Your task to perform on an android device: toggle notifications settings in the gmail app Image 0: 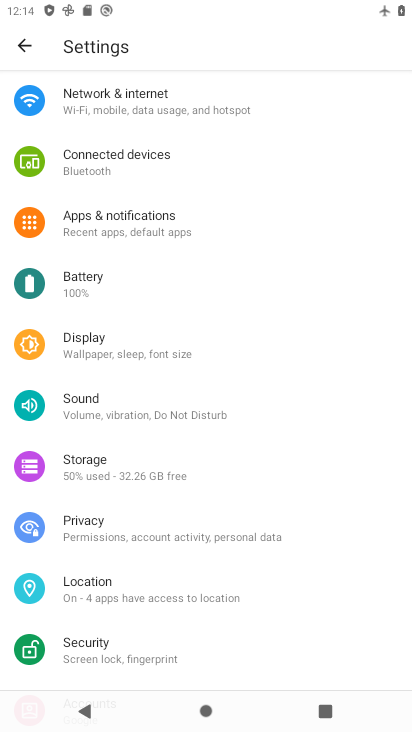
Step 0: press home button
Your task to perform on an android device: toggle notifications settings in the gmail app Image 1: 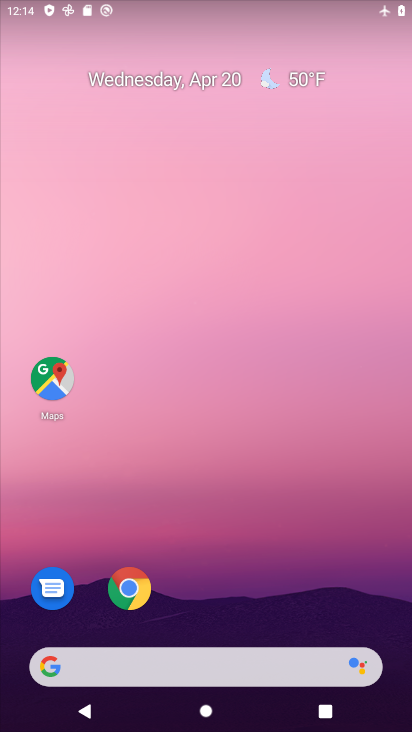
Step 1: drag from (221, 570) to (262, 136)
Your task to perform on an android device: toggle notifications settings in the gmail app Image 2: 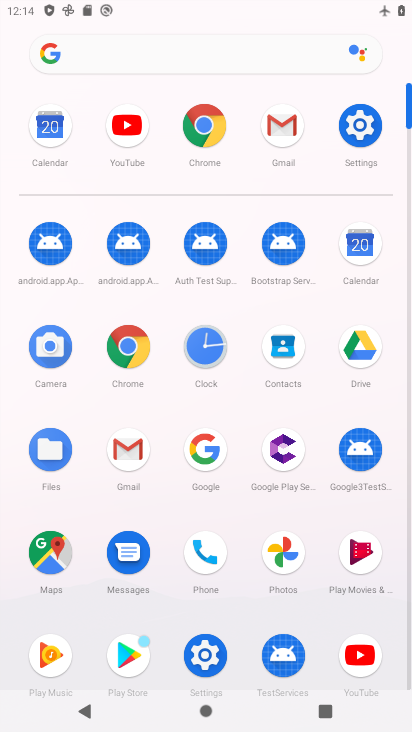
Step 2: click (127, 444)
Your task to perform on an android device: toggle notifications settings in the gmail app Image 3: 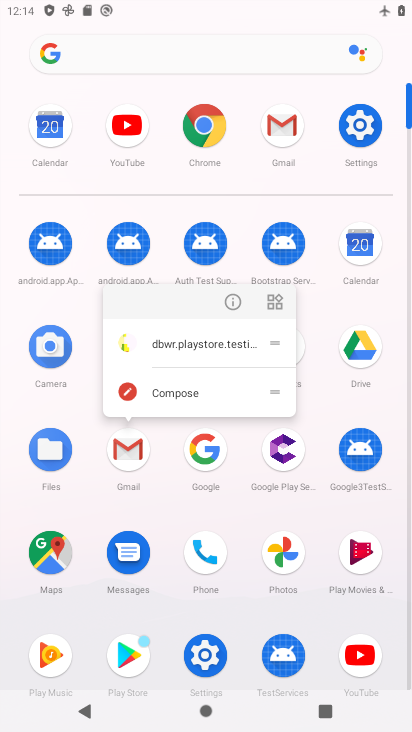
Step 3: click (126, 444)
Your task to perform on an android device: toggle notifications settings in the gmail app Image 4: 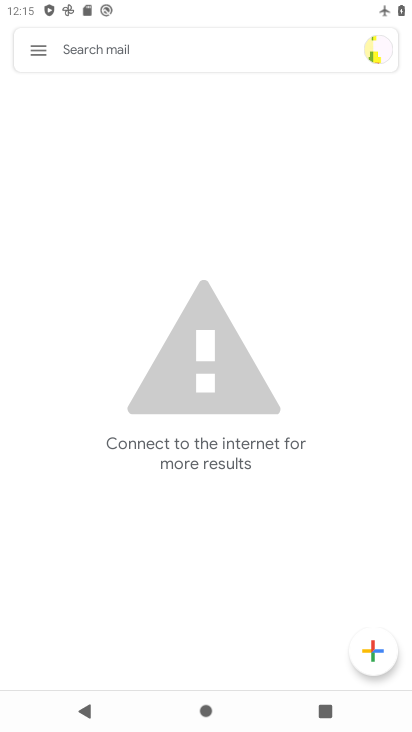
Step 4: click (38, 44)
Your task to perform on an android device: toggle notifications settings in the gmail app Image 5: 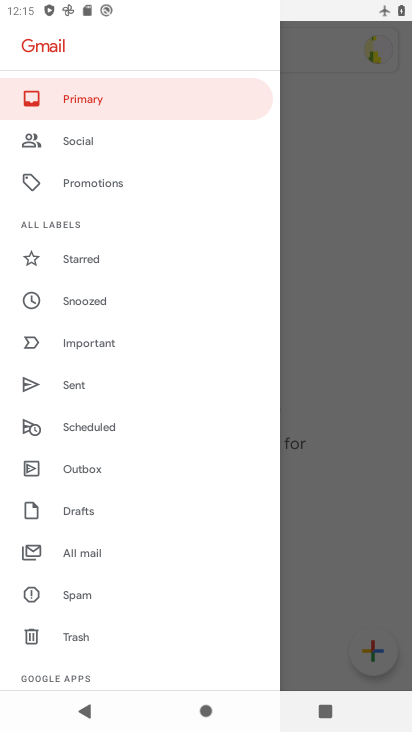
Step 5: drag from (103, 602) to (149, 116)
Your task to perform on an android device: toggle notifications settings in the gmail app Image 6: 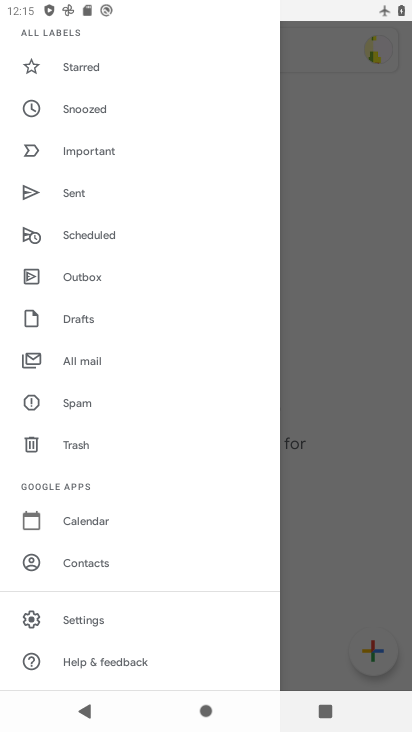
Step 6: click (107, 616)
Your task to perform on an android device: toggle notifications settings in the gmail app Image 7: 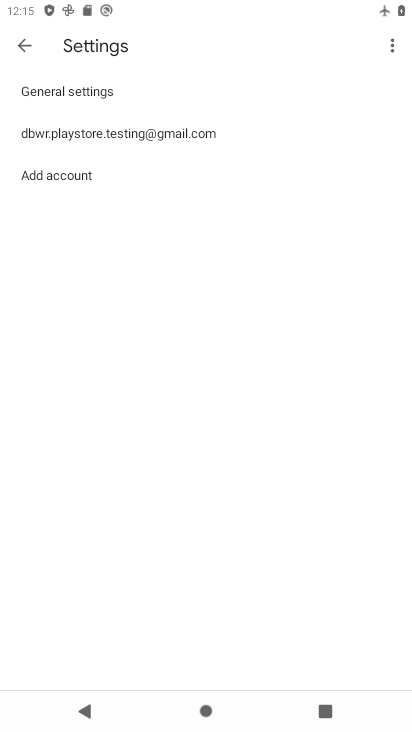
Step 7: click (125, 89)
Your task to perform on an android device: toggle notifications settings in the gmail app Image 8: 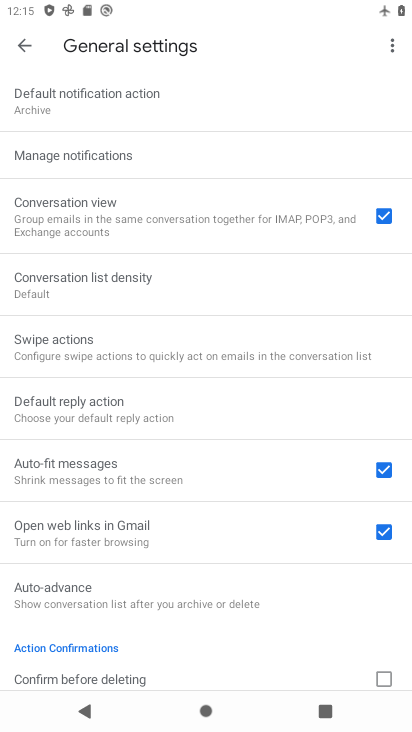
Step 8: click (145, 148)
Your task to perform on an android device: toggle notifications settings in the gmail app Image 9: 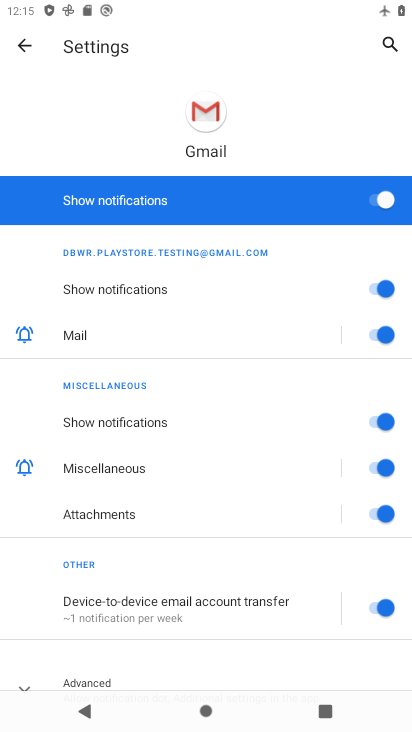
Step 9: click (375, 201)
Your task to perform on an android device: toggle notifications settings in the gmail app Image 10: 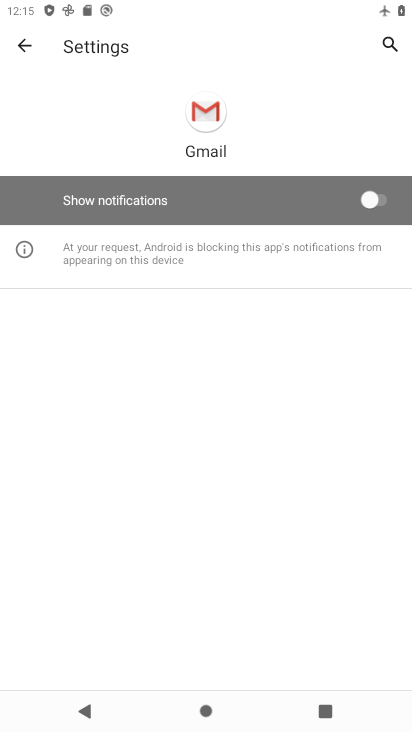
Step 10: task complete